Your task to perform on an android device: Search for sushi restaurants on Maps Image 0: 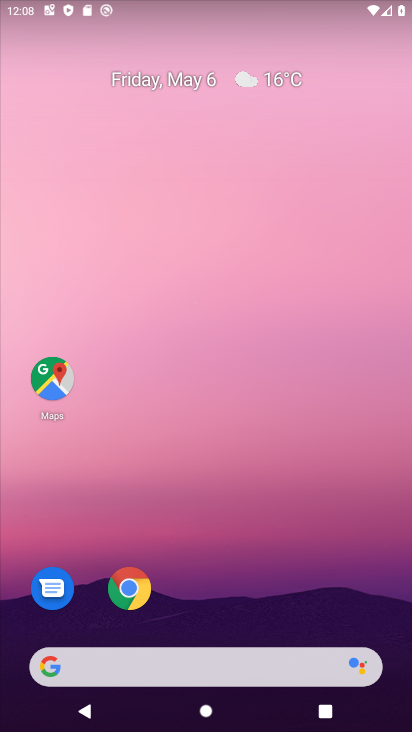
Step 0: drag from (260, 506) to (255, 0)
Your task to perform on an android device: Search for sushi restaurants on Maps Image 1: 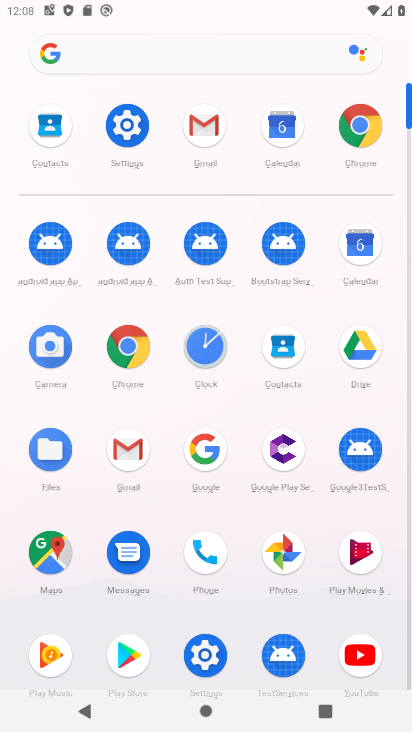
Step 1: click (49, 554)
Your task to perform on an android device: Search for sushi restaurants on Maps Image 2: 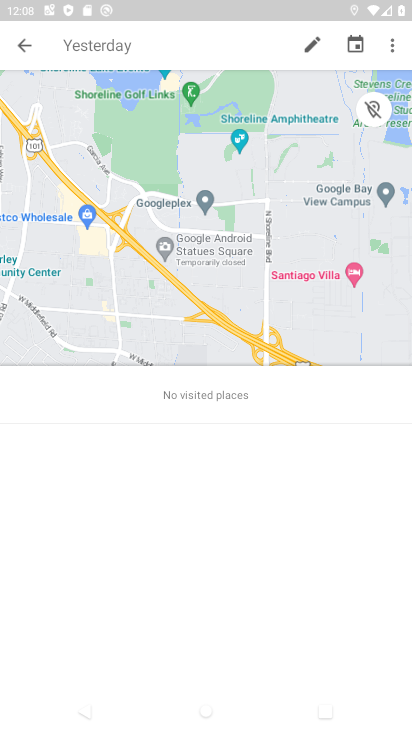
Step 2: click (18, 35)
Your task to perform on an android device: Search for sushi restaurants on Maps Image 3: 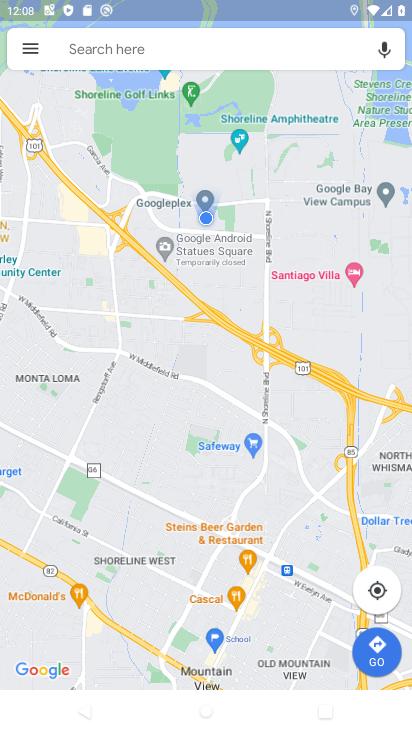
Step 3: click (139, 48)
Your task to perform on an android device: Search for sushi restaurants on Maps Image 4: 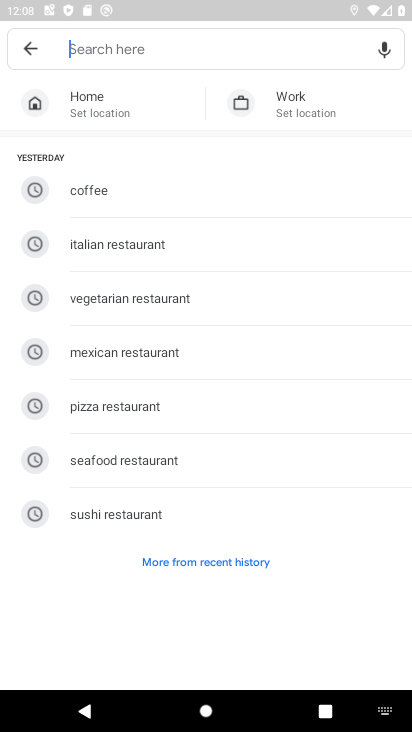
Step 4: click (135, 506)
Your task to perform on an android device: Search for sushi restaurants on Maps Image 5: 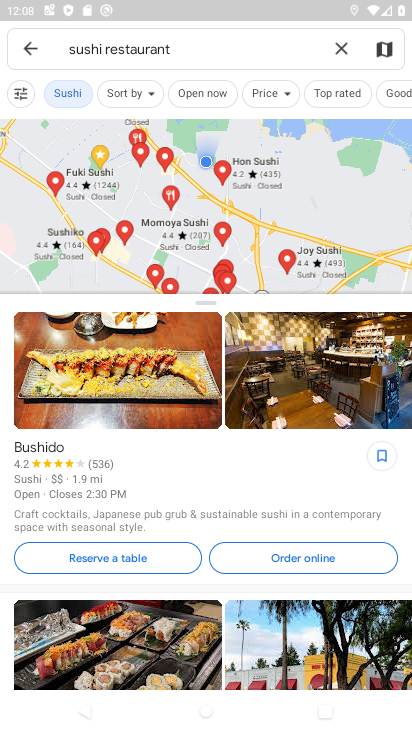
Step 5: task complete